Your task to perform on an android device: Go to Google maps Image 0: 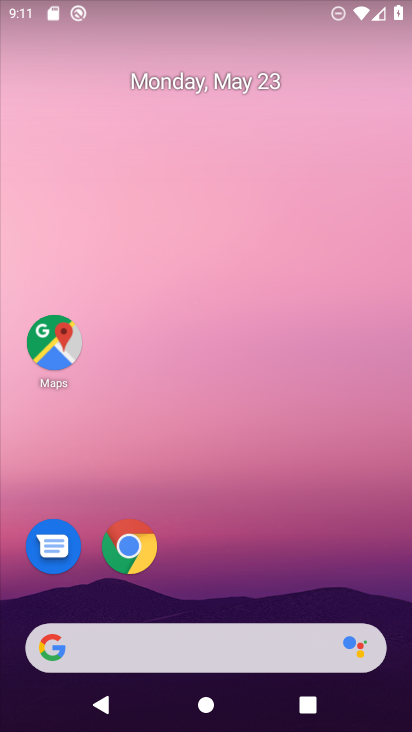
Step 0: drag from (331, 556) to (262, 157)
Your task to perform on an android device: Go to Google maps Image 1: 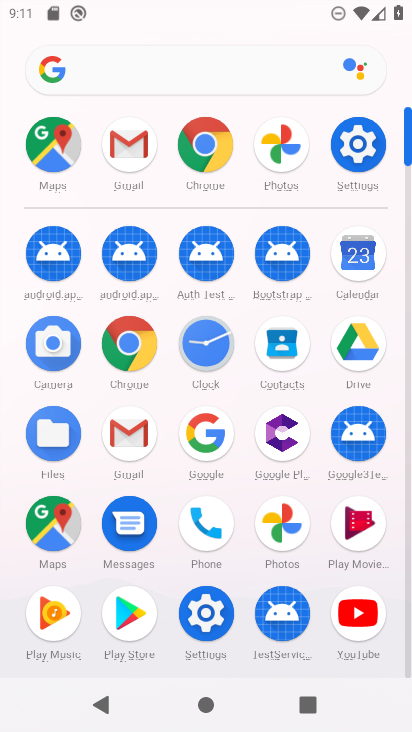
Step 1: click (60, 142)
Your task to perform on an android device: Go to Google maps Image 2: 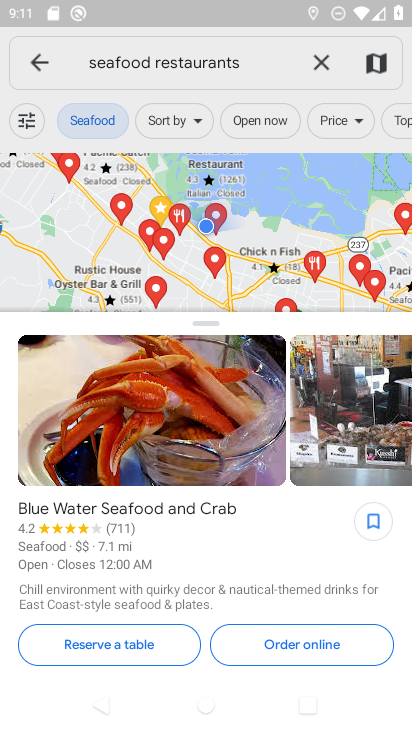
Step 2: task complete